Your task to perform on an android device: Go to ESPN.com Image 0: 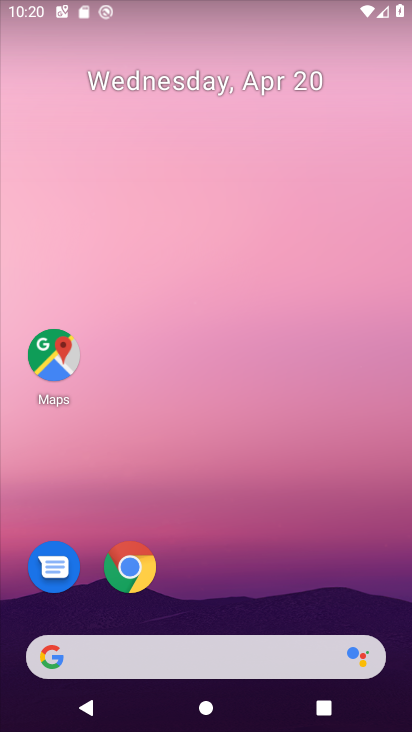
Step 0: drag from (280, 512) to (0, 89)
Your task to perform on an android device: Go to ESPN.com Image 1: 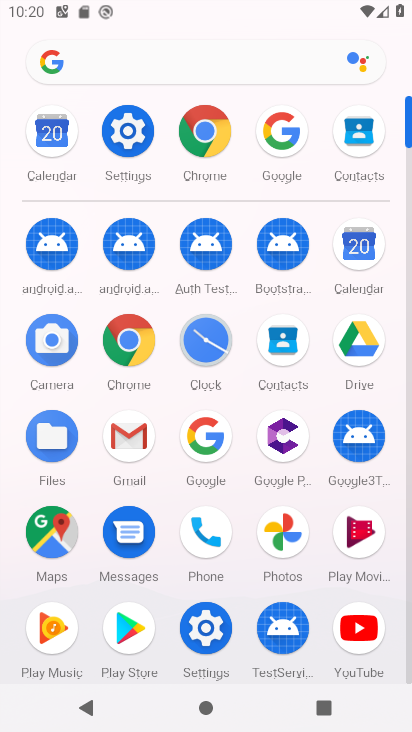
Step 1: click (133, 343)
Your task to perform on an android device: Go to ESPN.com Image 2: 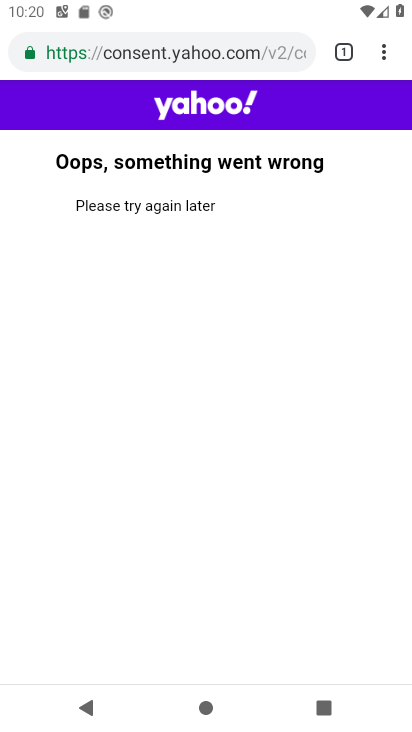
Step 2: click (203, 37)
Your task to perform on an android device: Go to ESPN.com Image 3: 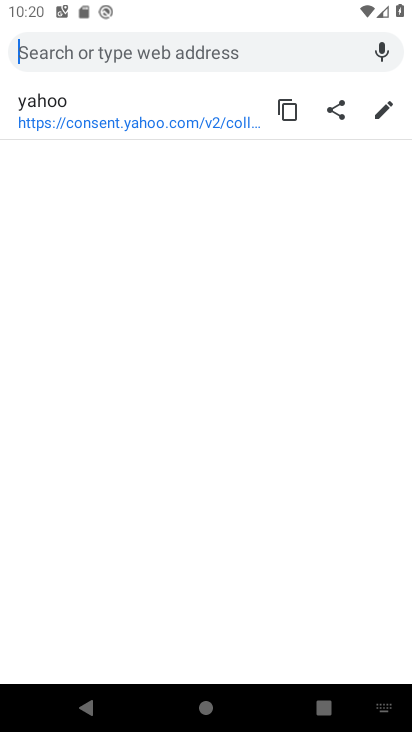
Step 3: type "espn.com"
Your task to perform on an android device: Go to ESPN.com Image 4: 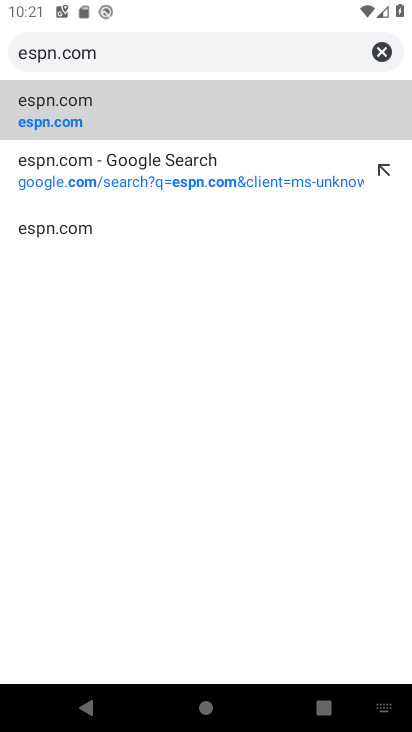
Step 4: click (51, 227)
Your task to perform on an android device: Go to ESPN.com Image 5: 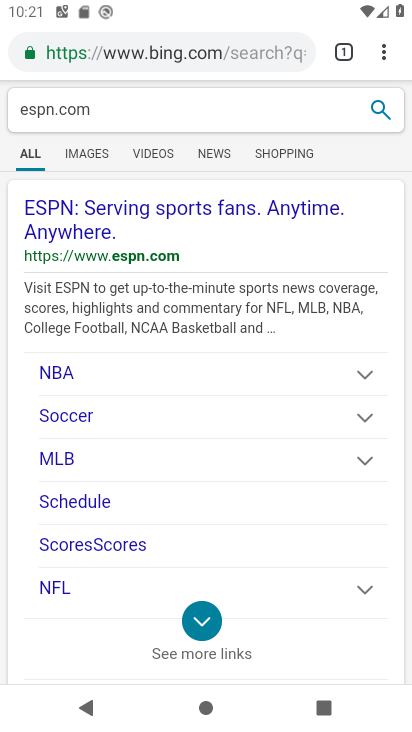
Step 5: task complete